Your task to perform on an android device: Open internet settings Image 0: 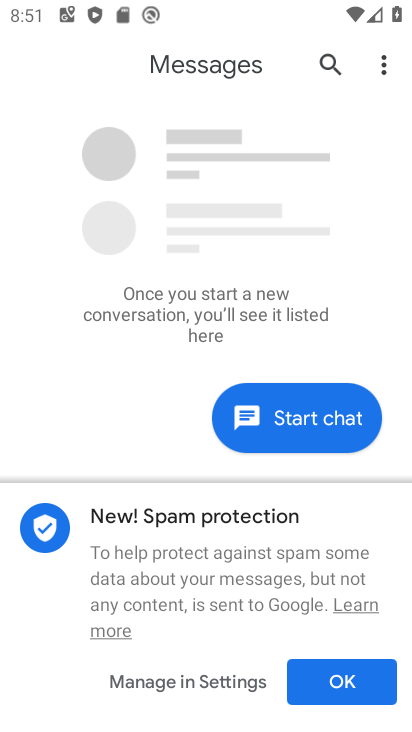
Step 0: press home button
Your task to perform on an android device: Open internet settings Image 1: 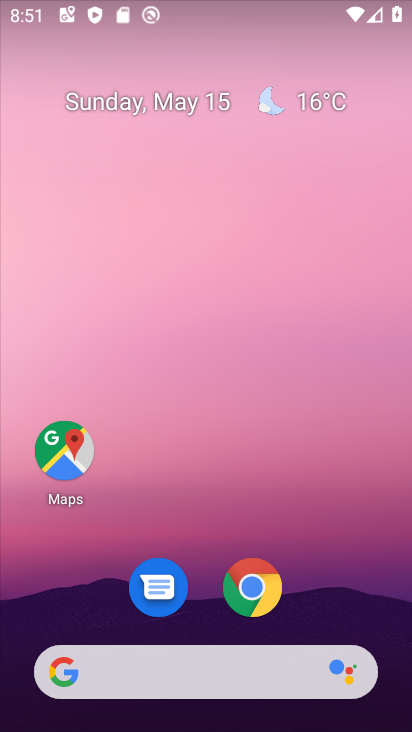
Step 1: drag from (332, 530) to (403, 136)
Your task to perform on an android device: Open internet settings Image 2: 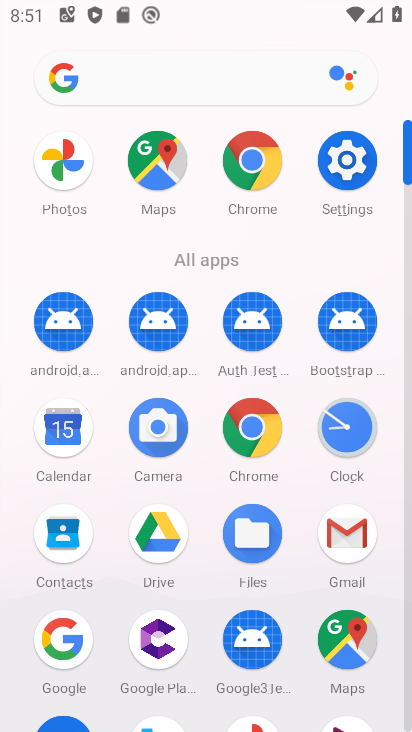
Step 2: click (355, 155)
Your task to perform on an android device: Open internet settings Image 3: 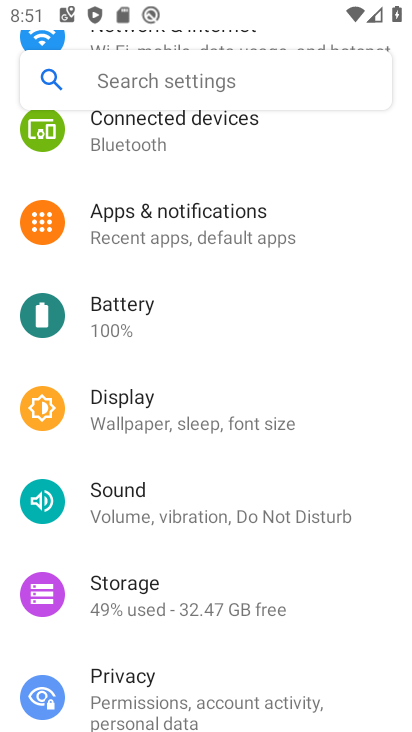
Step 3: drag from (213, 152) to (258, 644)
Your task to perform on an android device: Open internet settings Image 4: 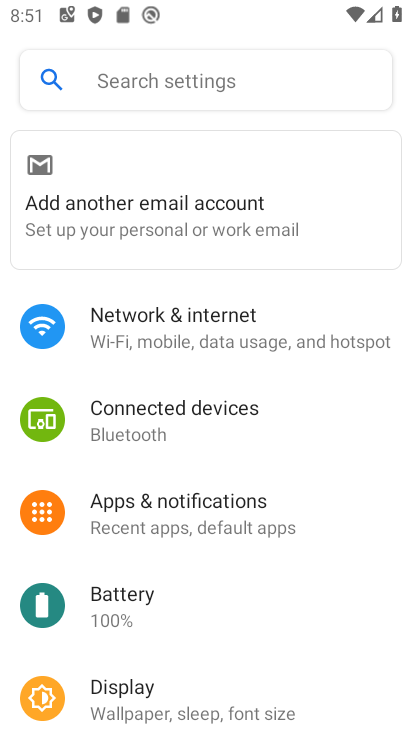
Step 4: click (203, 339)
Your task to perform on an android device: Open internet settings Image 5: 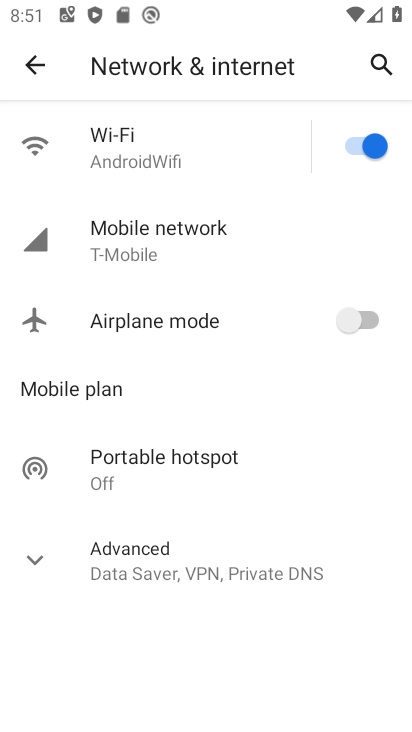
Step 5: task complete